Your task to perform on an android device: Open Youtube and go to "Your channel" Image 0: 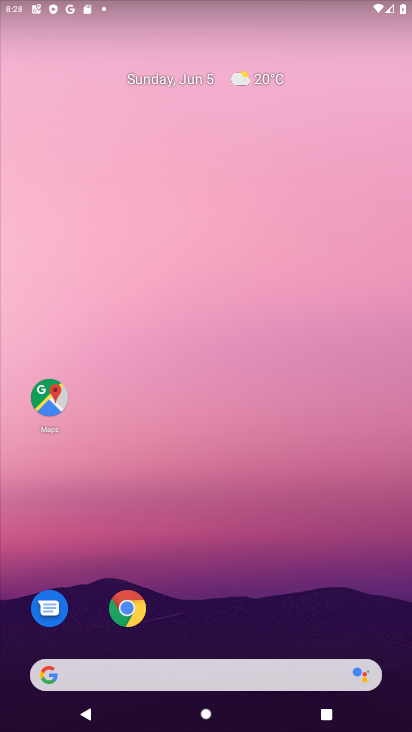
Step 0: drag from (19, 609) to (267, 93)
Your task to perform on an android device: Open Youtube and go to "Your channel" Image 1: 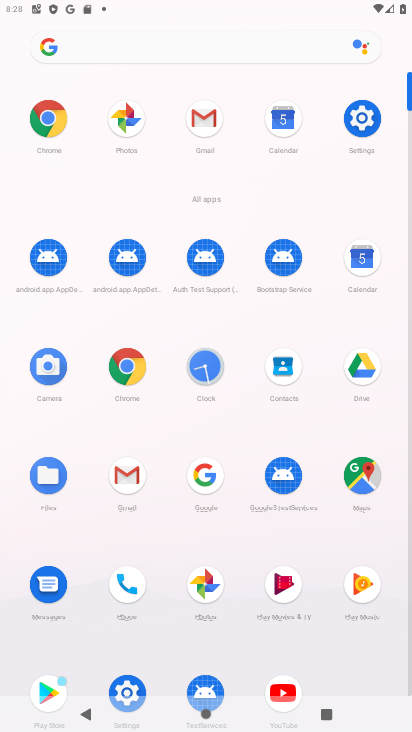
Step 1: click (278, 683)
Your task to perform on an android device: Open Youtube and go to "Your channel" Image 2: 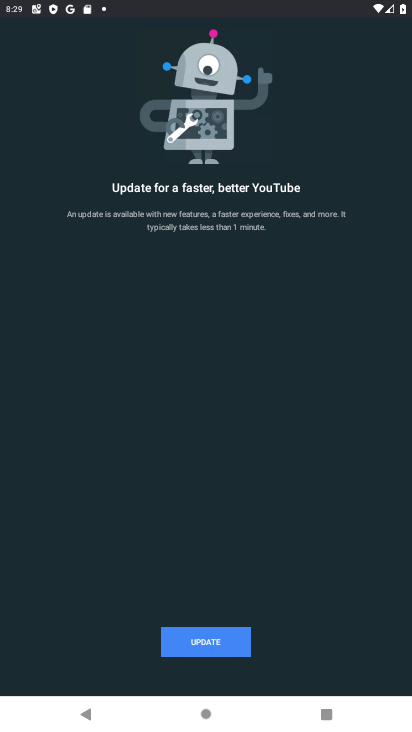
Step 2: task complete